Your task to perform on an android device: Go to battery settings Image 0: 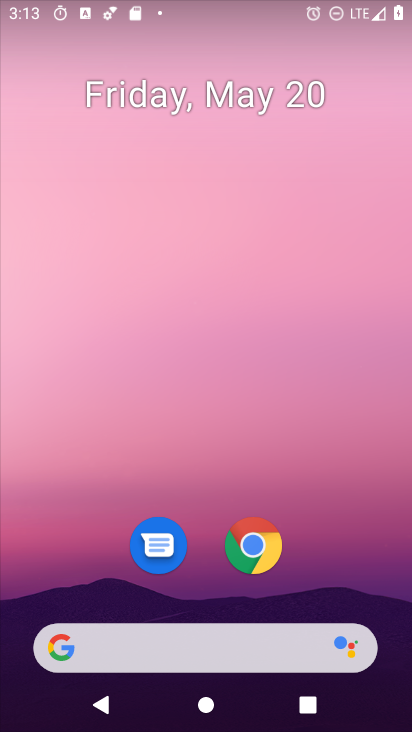
Step 0: drag from (296, 638) to (404, 654)
Your task to perform on an android device: Go to battery settings Image 1: 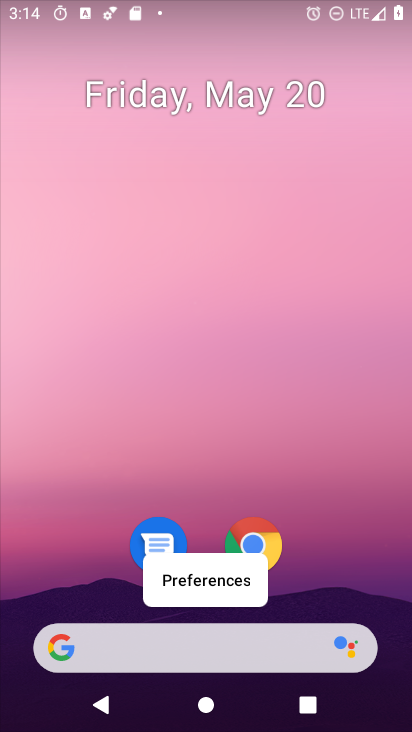
Step 1: drag from (308, 649) to (276, 13)
Your task to perform on an android device: Go to battery settings Image 2: 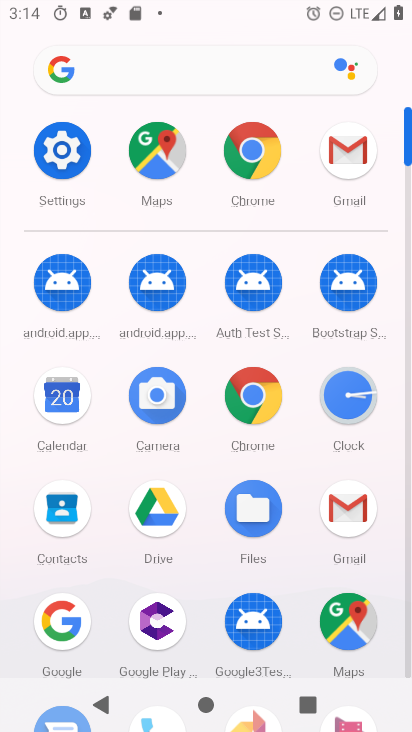
Step 2: click (74, 144)
Your task to perform on an android device: Go to battery settings Image 3: 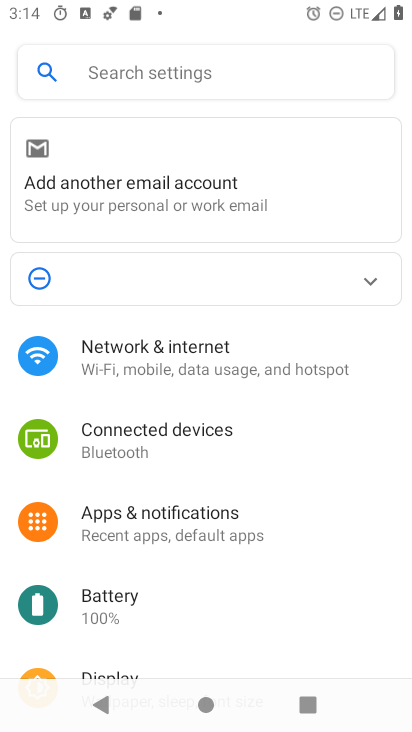
Step 3: click (148, 619)
Your task to perform on an android device: Go to battery settings Image 4: 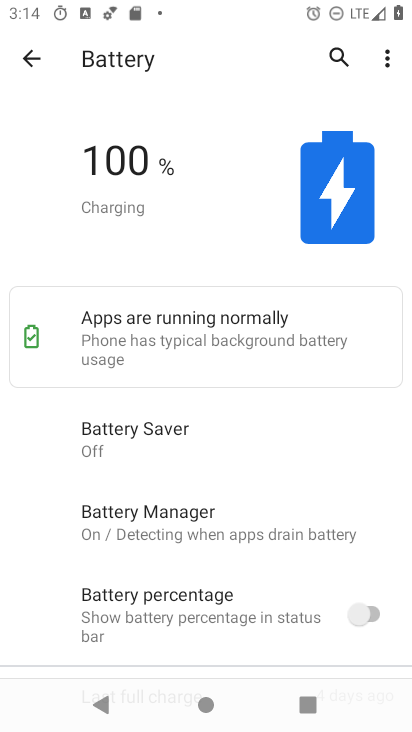
Step 4: task complete